Your task to perform on an android device: toggle sleep mode Image 0: 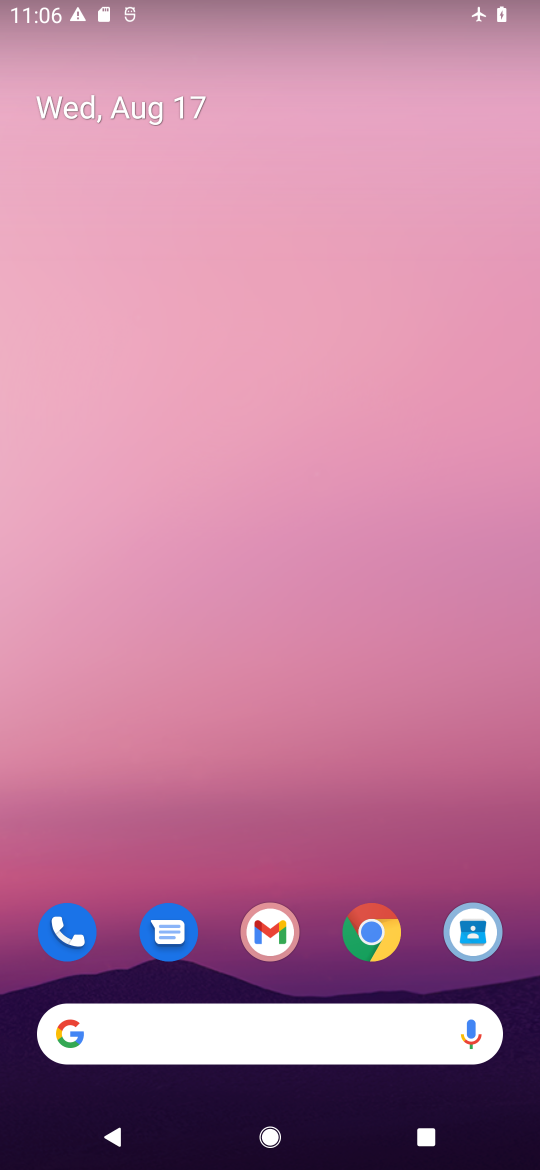
Step 0: drag from (314, 562) to (298, 250)
Your task to perform on an android device: toggle sleep mode Image 1: 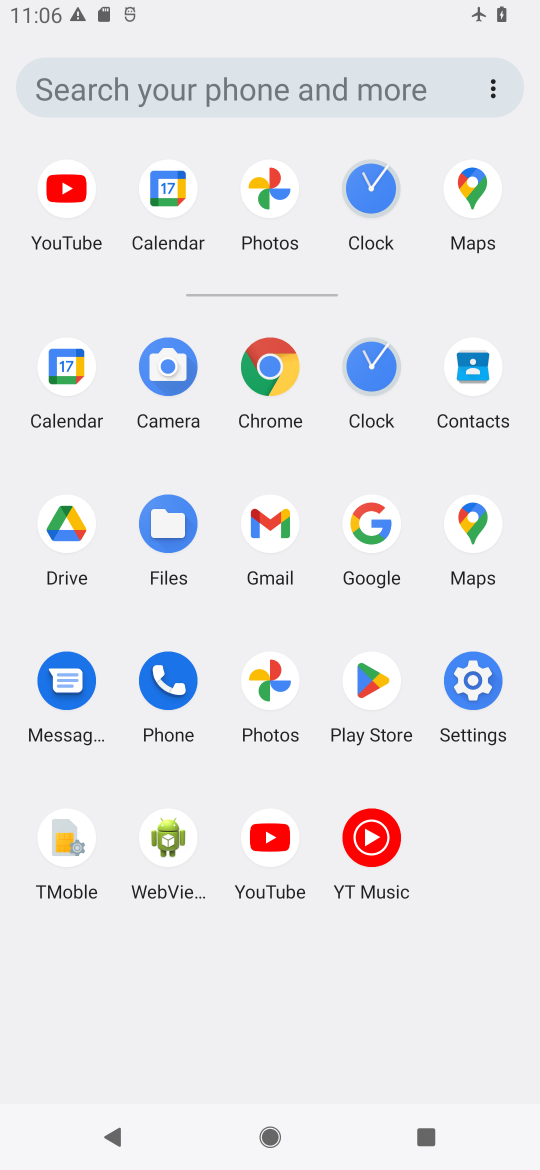
Step 1: click (479, 684)
Your task to perform on an android device: toggle sleep mode Image 2: 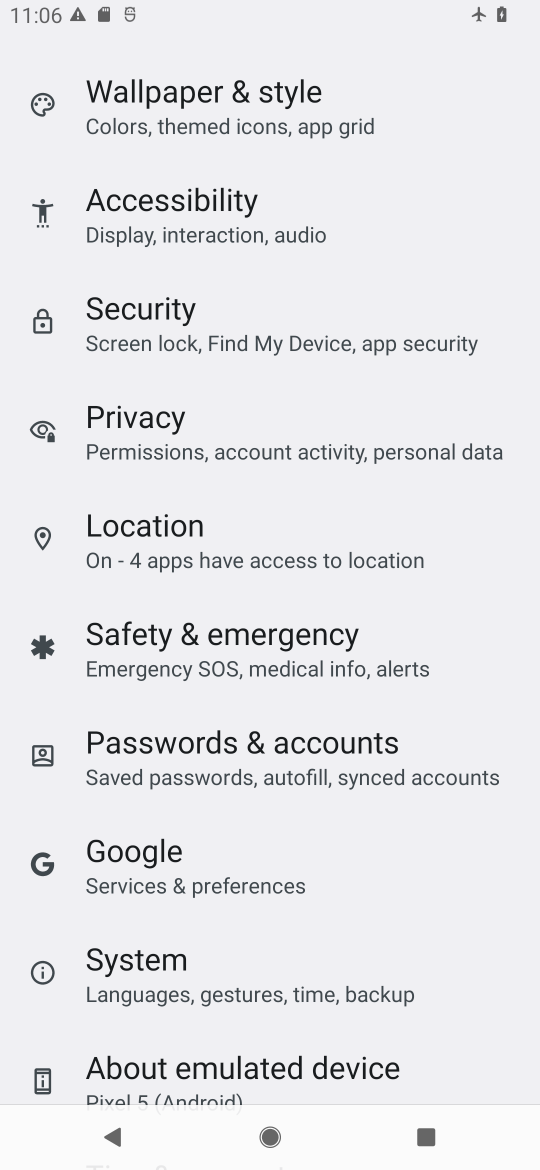
Step 2: drag from (331, 338) to (360, 922)
Your task to perform on an android device: toggle sleep mode Image 3: 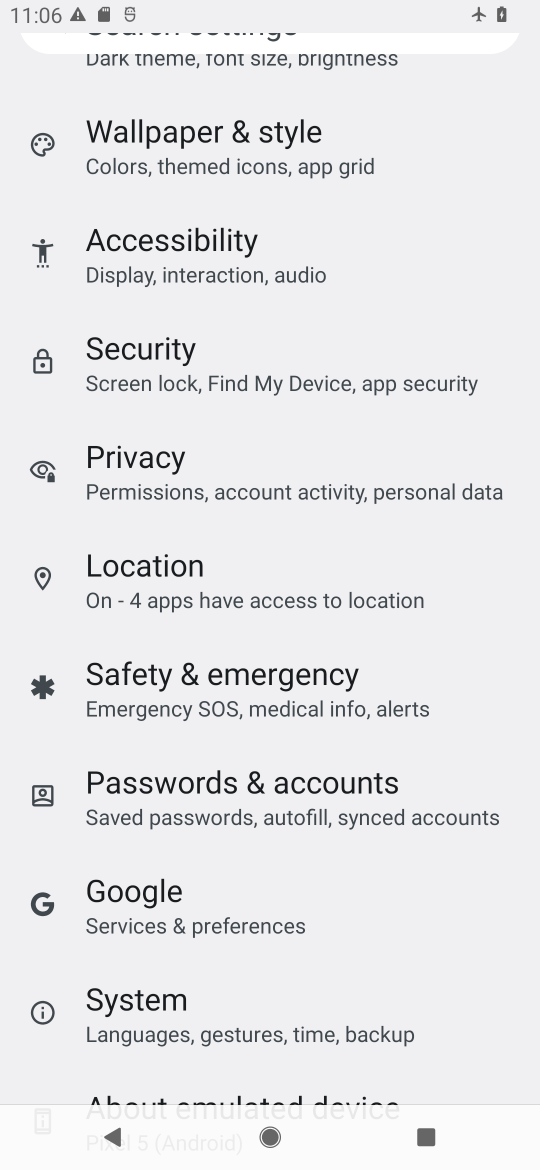
Step 3: drag from (237, 482) to (237, 954)
Your task to perform on an android device: toggle sleep mode Image 4: 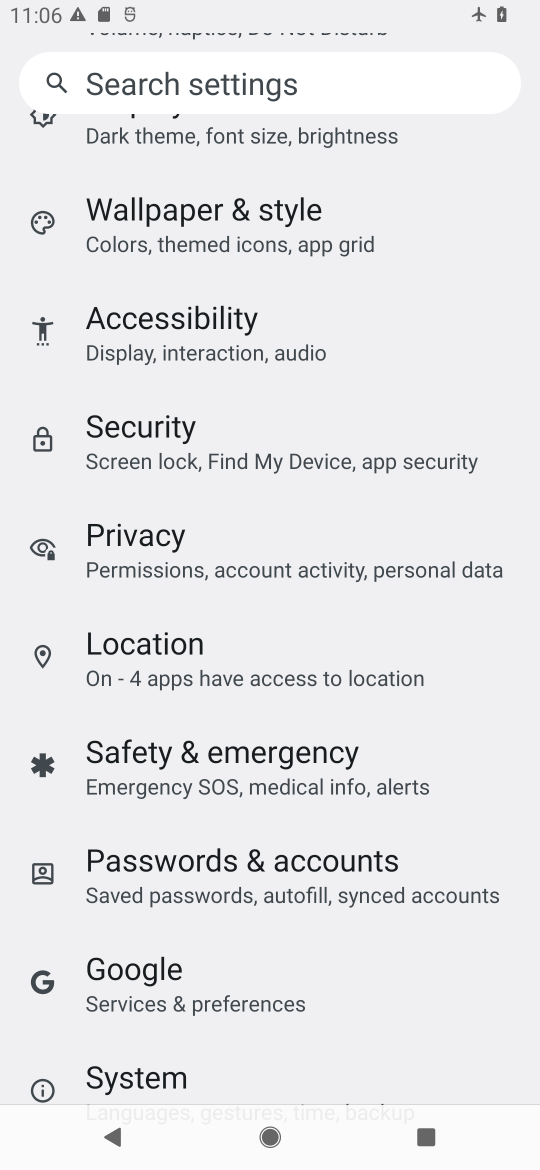
Step 4: drag from (227, 336) to (348, 1001)
Your task to perform on an android device: toggle sleep mode Image 5: 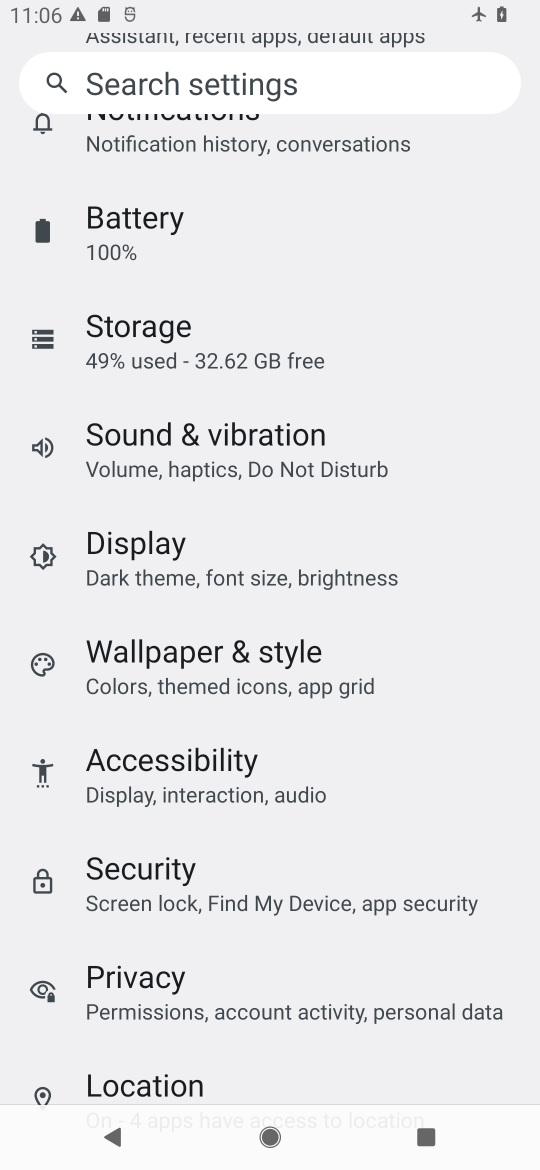
Step 5: drag from (248, 309) to (288, 774)
Your task to perform on an android device: toggle sleep mode Image 6: 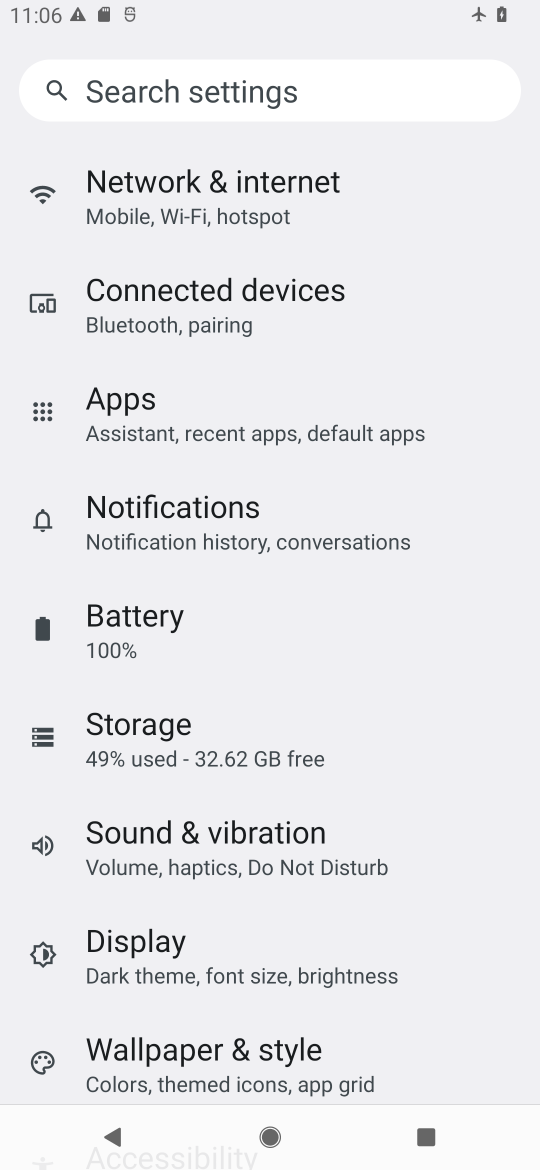
Step 6: drag from (346, 344) to (404, 819)
Your task to perform on an android device: toggle sleep mode Image 7: 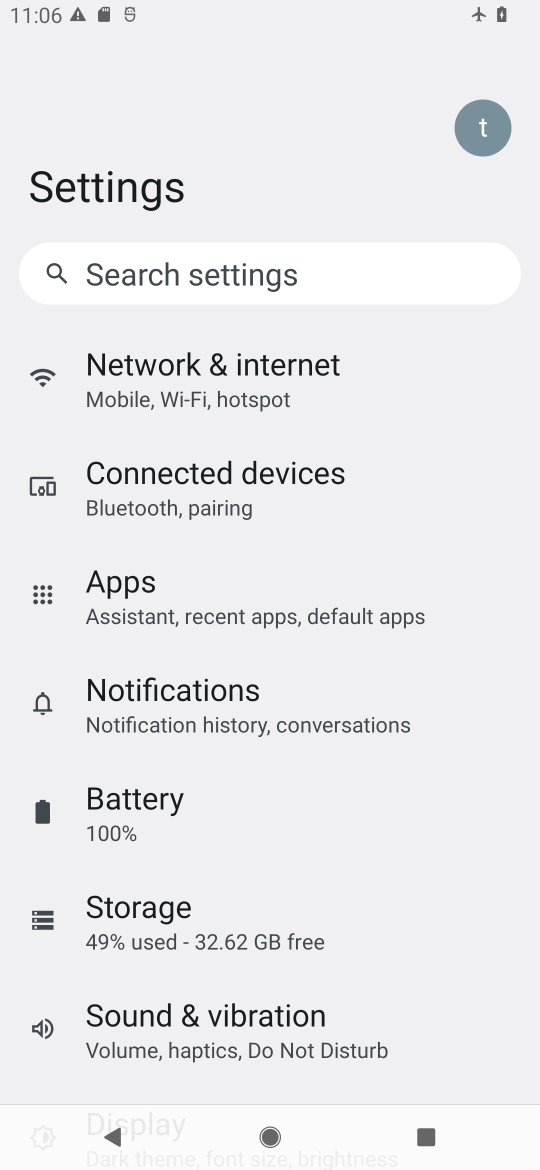
Step 7: drag from (167, 957) to (170, 499)
Your task to perform on an android device: toggle sleep mode Image 8: 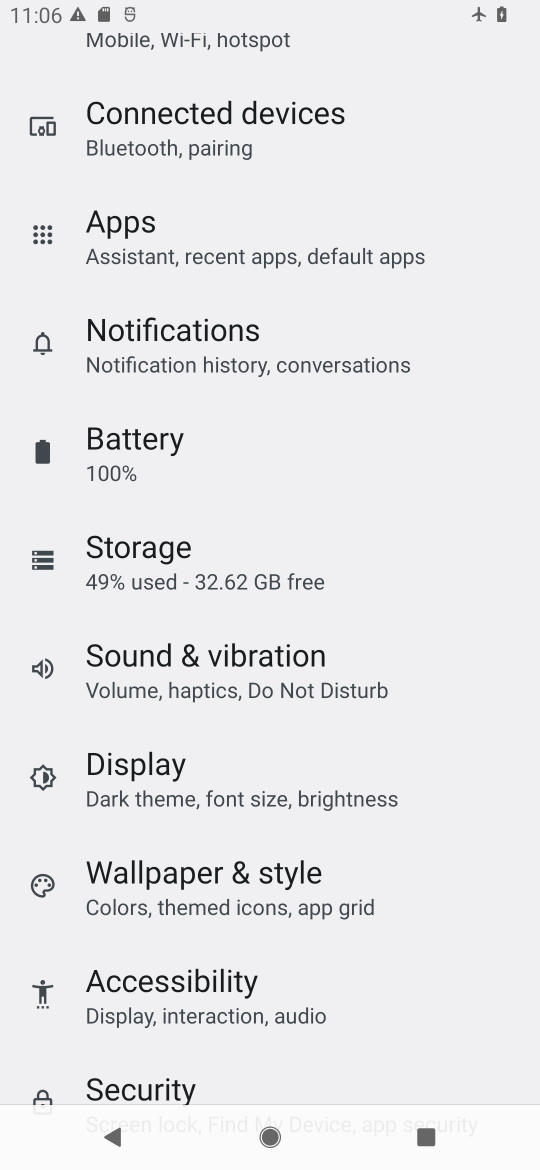
Step 8: click (164, 773)
Your task to perform on an android device: toggle sleep mode Image 9: 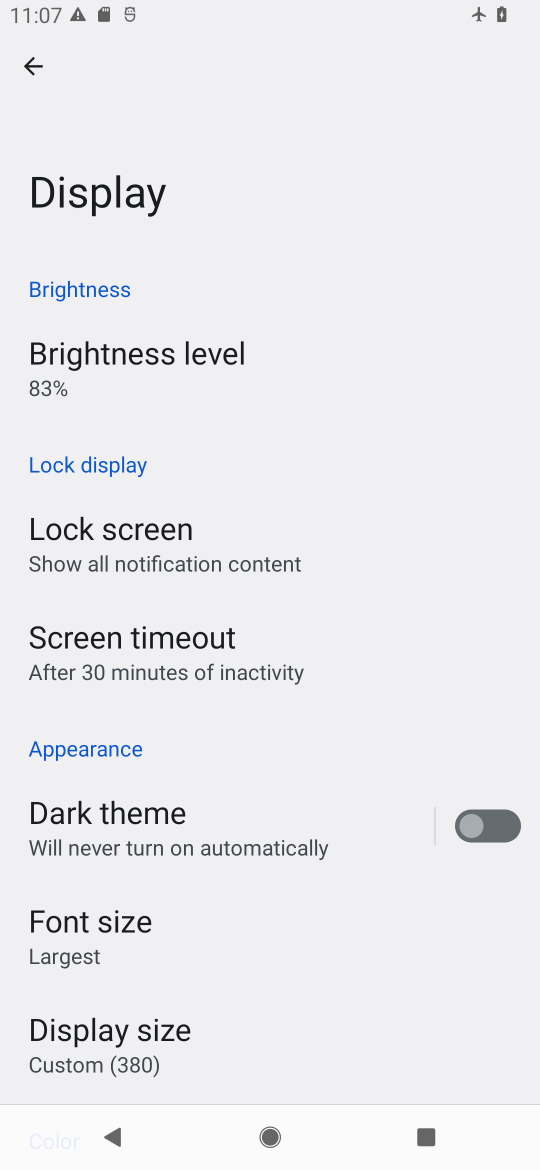
Step 9: click (179, 675)
Your task to perform on an android device: toggle sleep mode Image 10: 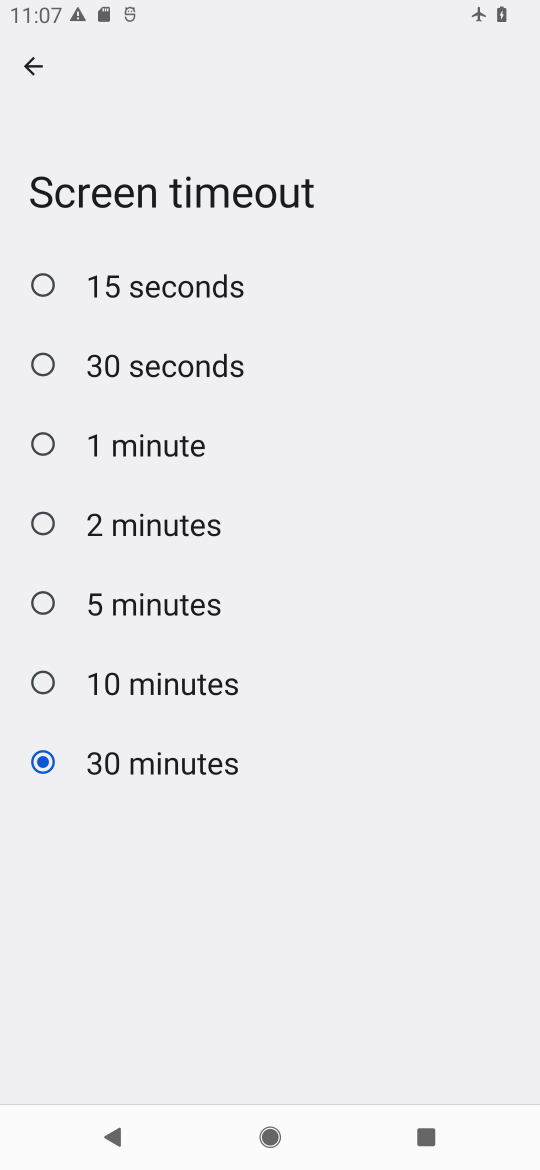
Step 10: click (147, 437)
Your task to perform on an android device: toggle sleep mode Image 11: 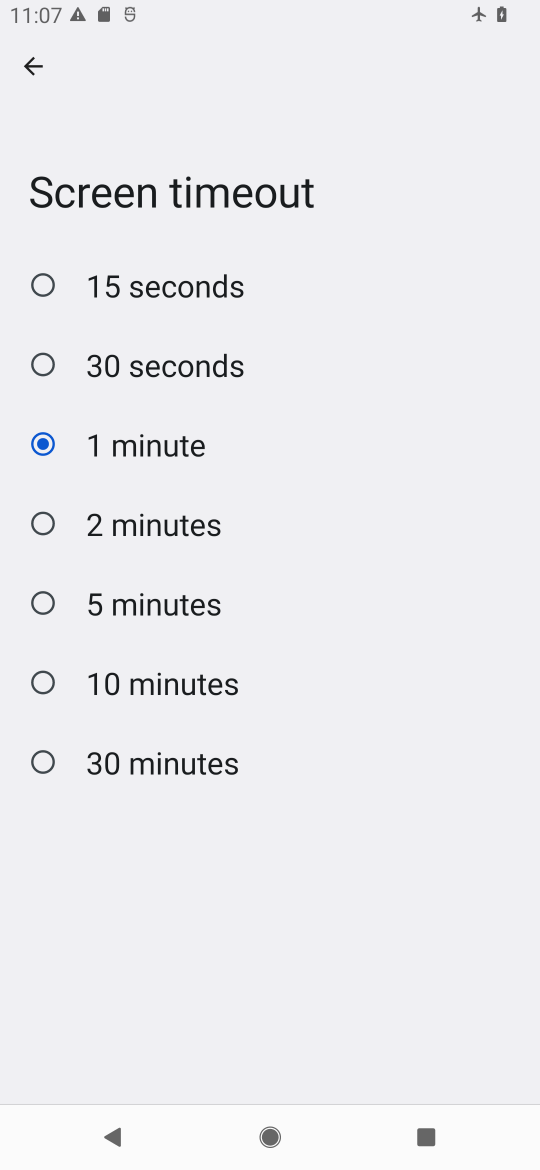
Step 11: task complete